Your task to perform on an android device: Open Google Chrome and click the shortcut for Amazon.com Image 0: 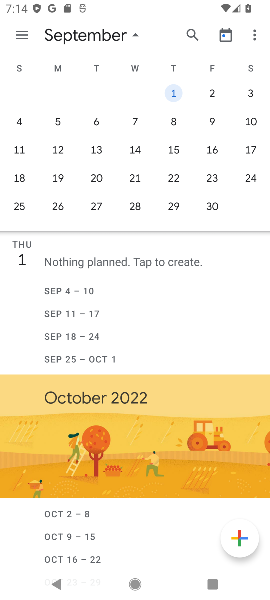
Step 0: press home button
Your task to perform on an android device: Open Google Chrome and click the shortcut for Amazon.com Image 1: 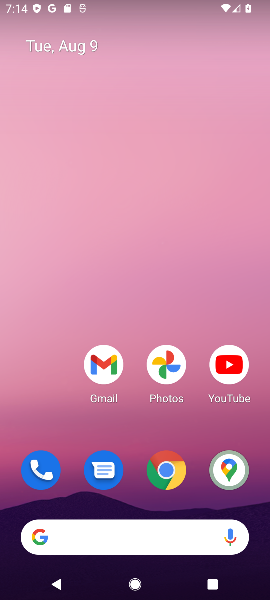
Step 1: click (176, 447)
Your task to perform on an android device: Open Google Chrome and click the shortcut for Amazon.com Image 2: 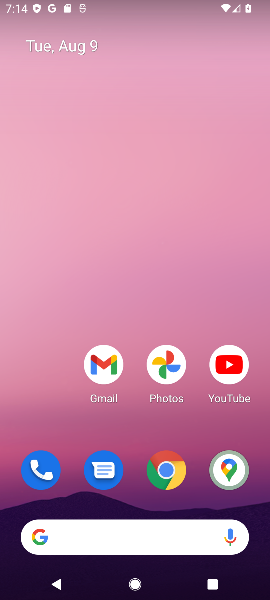
Step 2: click (176, 447)
Your task to perform on an android device: Open Google Chrome and click the shortcut for Amazon.com Image 3: 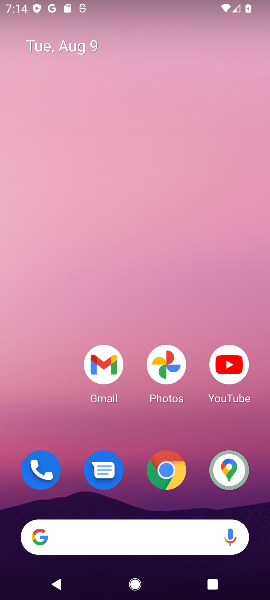
Step 3: click (176, 447)
Your task to perform on an android device: Open Google Chrome and click the shortcut for Amazon.com Image 4: 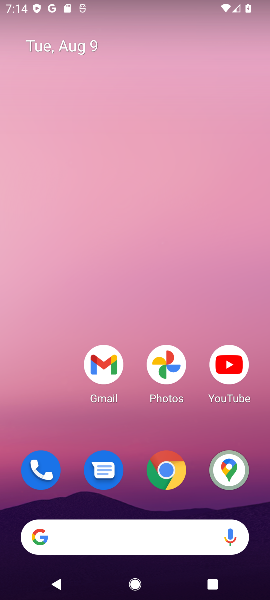
Step 4: click (160, 474)
Your task to perform on an android device: Open Google Chrome and click the shortcut for Amazon.com Image 5: 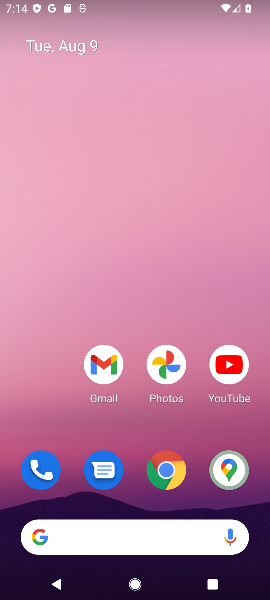
Step 5: click (160, 474)
Your task to perform on an android device: Open Google Chrome and click the shortcut for Amazon.com Image 6: 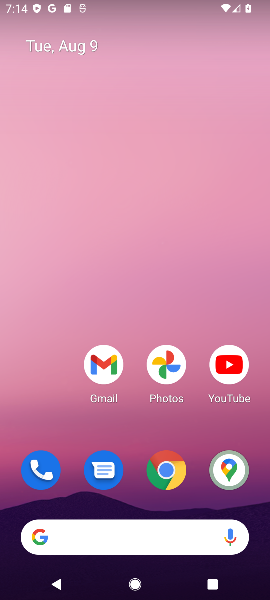
Step 6: click (160, 474)
Your task to perform on an android device: Open Google Chrome and click the shortcut for Amazon.com Image 7: 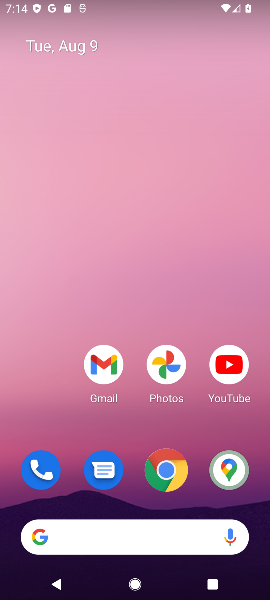
Step 7: click (160, 474)
Your task to perform on an android device: Open Google Chrome and click the shortcut for Amazon.com Image 8: 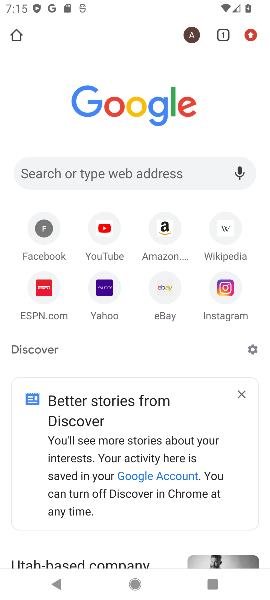
Step 8: click (175, 223)
Your task to perform on an android device: Open Google Chrome and click the shortcut for Amazon.com Image 9: 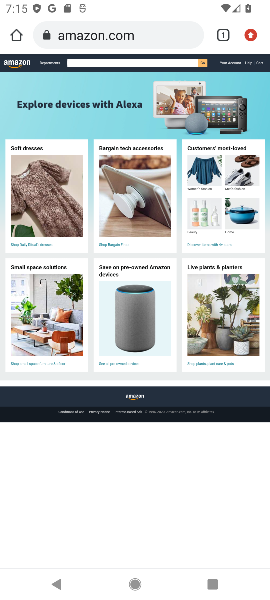
Step 9: task complete